Your task to perform on an android device: turn on showing notifications on the lock screen Image 0: 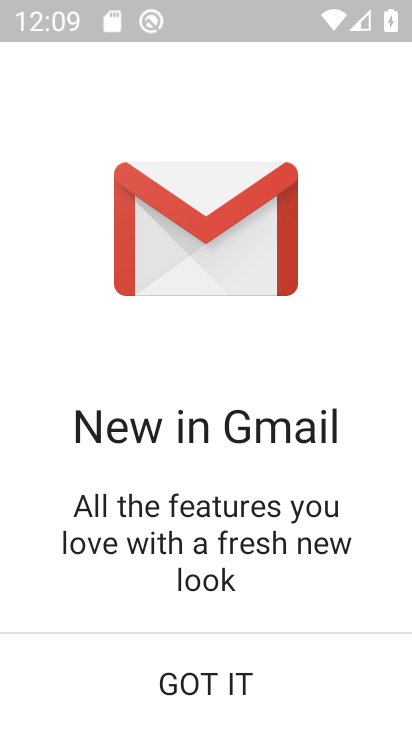
Step 0: press back button
Your task to perform on an android device: turn on showing notifications on the lock screen Image 1: 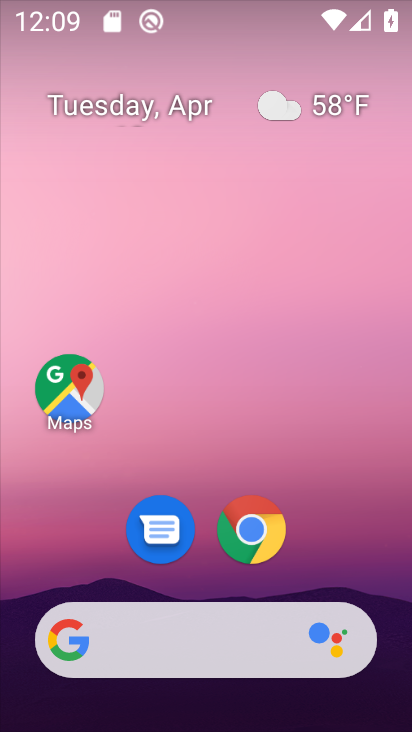
Step 1: drag from (225, 279) to (263, 93)
Your task to perform on an android device: turn on showing notifications on the lock screen Image 2: 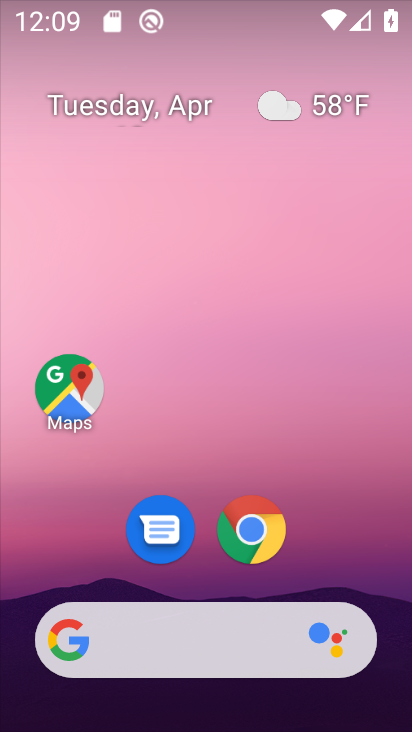
Step 2: drag from (187, 558) to (256, 47)
Your task to perform on an android device: turn on showing notifications on the lock screen Image 3: 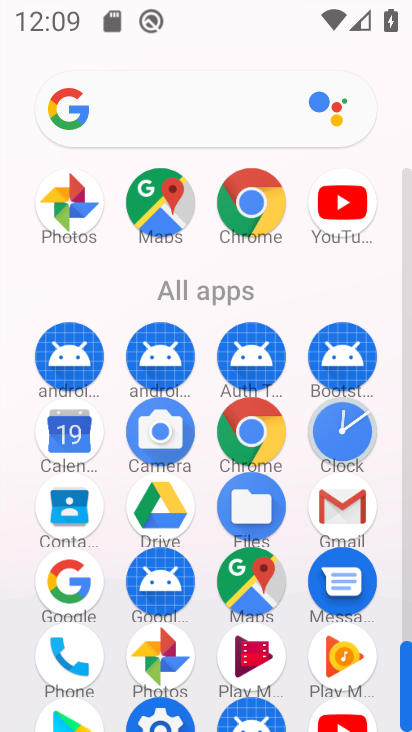
Step 3: drag from (200, 570) to (273, 271)
Your task to perform on an android device: turn on showing notifications on the lock screen Image 4: 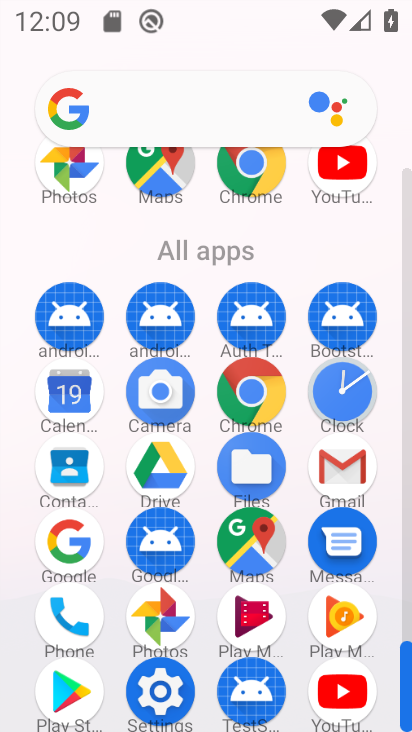
Step 4: click (148, 694)
Your task to perform on an android device: turn on showing notifications on the lock screen Image 5: 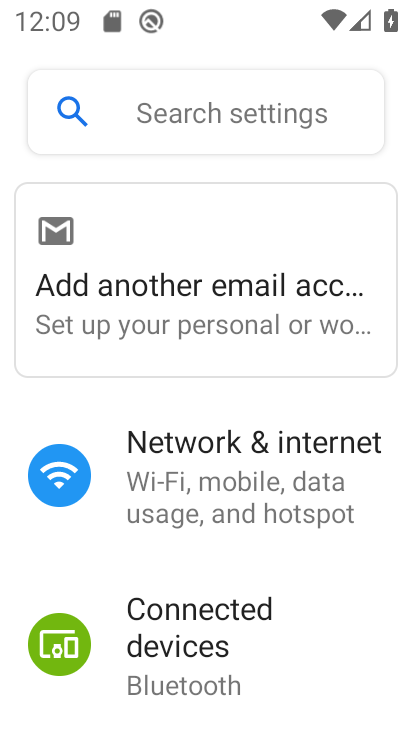
Step 5: drag from (233, 605) to (326, 283)
Your task to perform on an android device: turn on showing notifications on the lock screen Image 6: 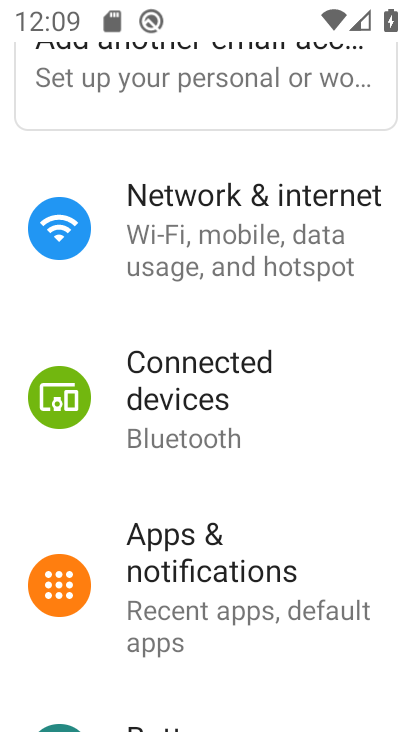
Step 6: click (186, 613)
Your task to perform on an android device: turn on showing notifications on the lock screen Image 7: 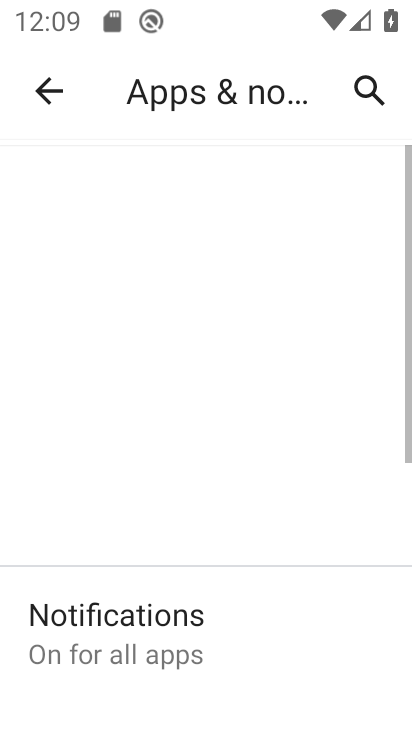
Step 7: drag from (162, 637) to (269, 315)
Your task to perform on an android device: turn on showing notifications on the lock screen Image 8: 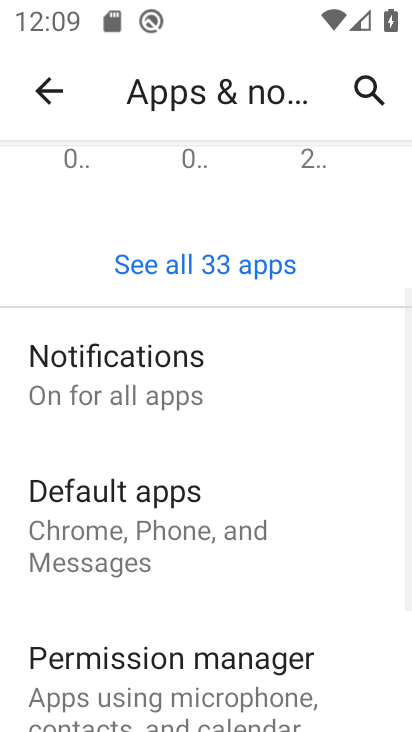
Step 8: click (215, 407)
Your task to perform on an android device: turn on showing notifications on the lock screen Image 9: 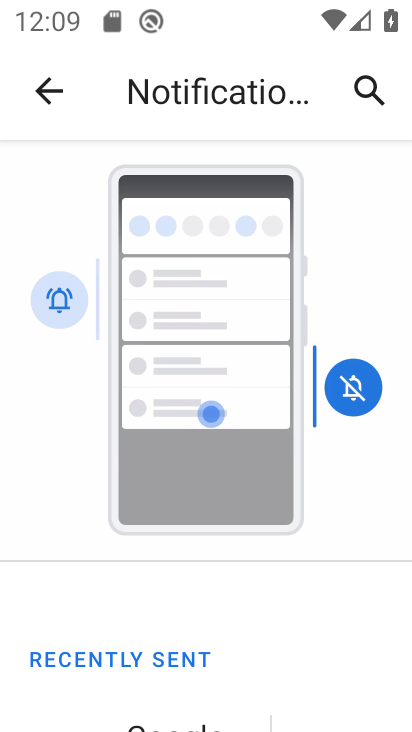
Step 9: drag from (205, 627) to (322, 238)
Your task to perform on an android device: turn on showing notifications on the lock screen Image 10: 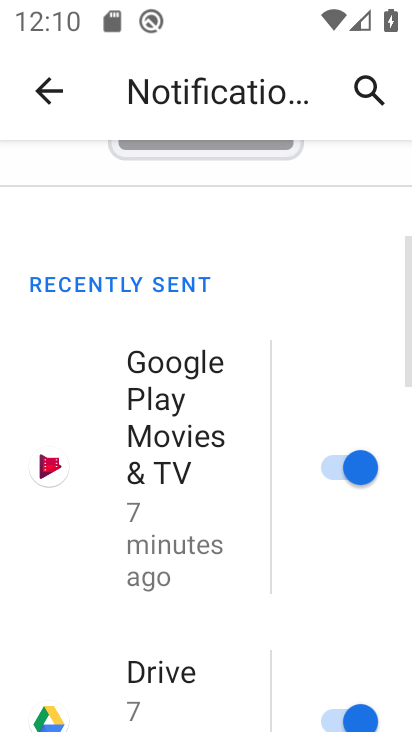
Step 10: drag from (212, 663) to (309, 264)
Your task to perform on an android device: turn on showing notifications on the lock screen Image 11: 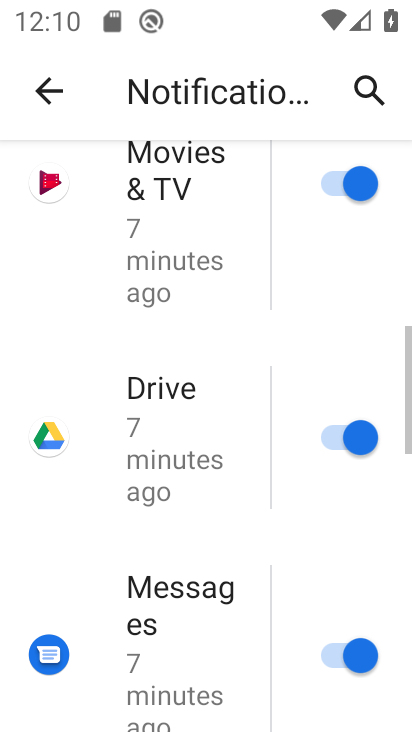
Step 11: drag from (233, 620) to (337, 236)
Your task to perform on an android device: turn on showing notifications on the lock screen Image 12: 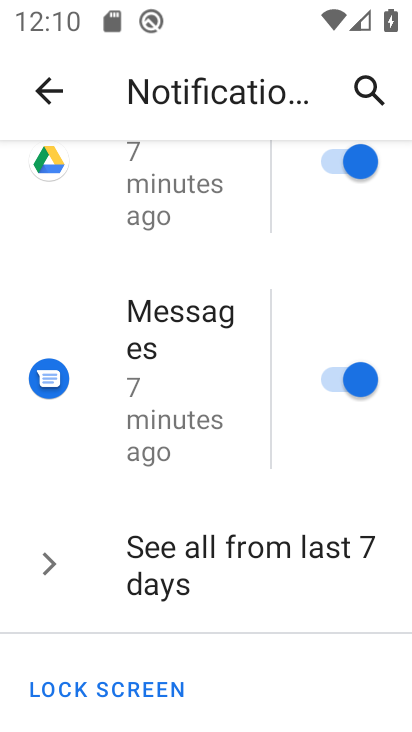
Step 12: drag from (218, 619) to (277, 367)
Your task to perform on an android device: turn on showing notifications on the lock screen Image 13: 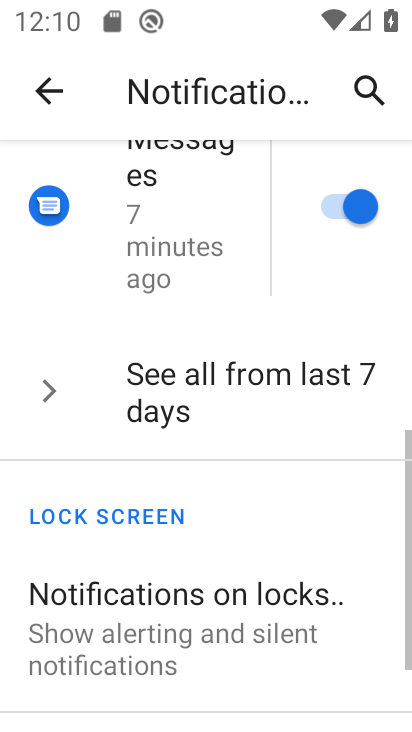
Step 13: click (257, 626)
Your task to perform on an android device: turn on showing notifications on the lock screen Image 14: 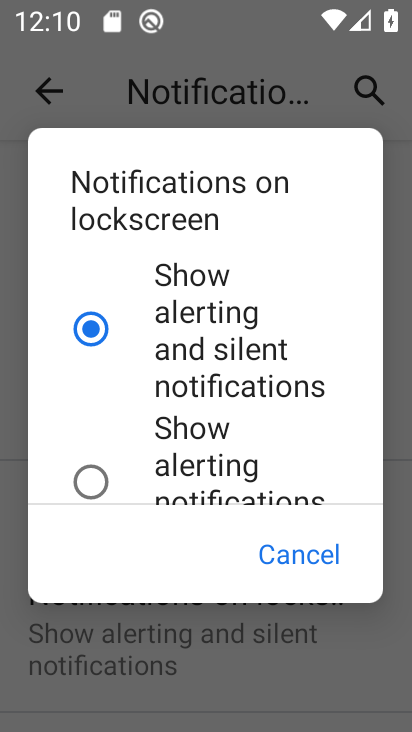
Step 14: task complete